Your task to perform on an android device: open device folders in google photos Image 0: 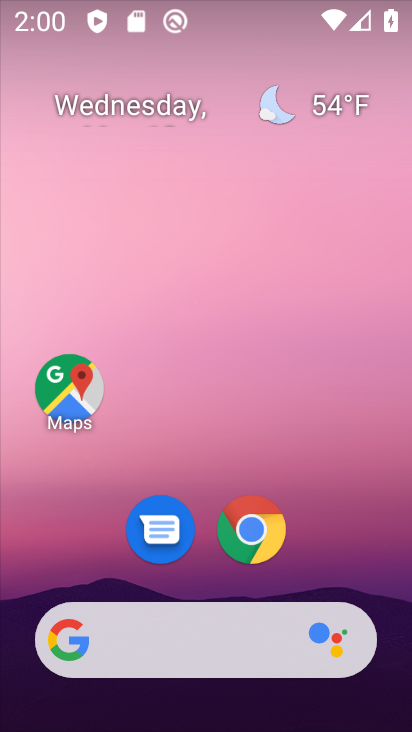
Step 0: drag from (209, 569) to (244, 40)
Your task to perform on an android device: open device folders in google photos Image 1: 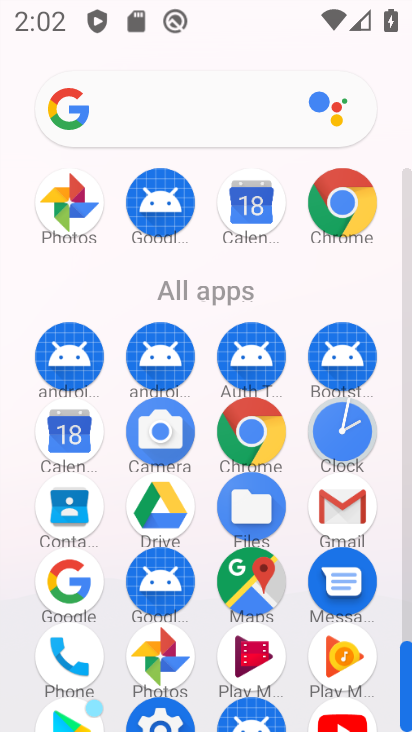
Step 1: click (178, 664)
Your task to perform on an android device: open device folders in google photos Image 2: 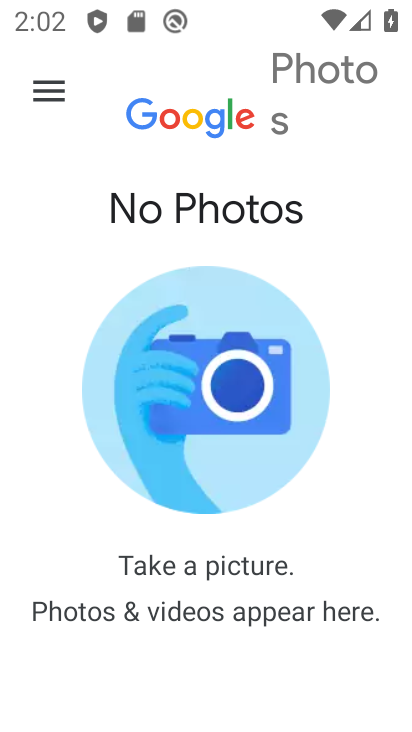
Step 2: click (35, 87)
Your task to perform on an android device: open device folders in google photos Image 3: 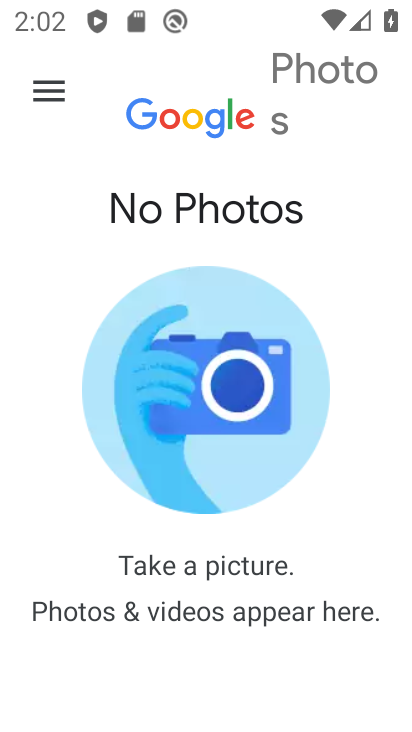
Step 3: click (53, 85)
Your task to perform on an android device: open device folders in google photos Image 4: 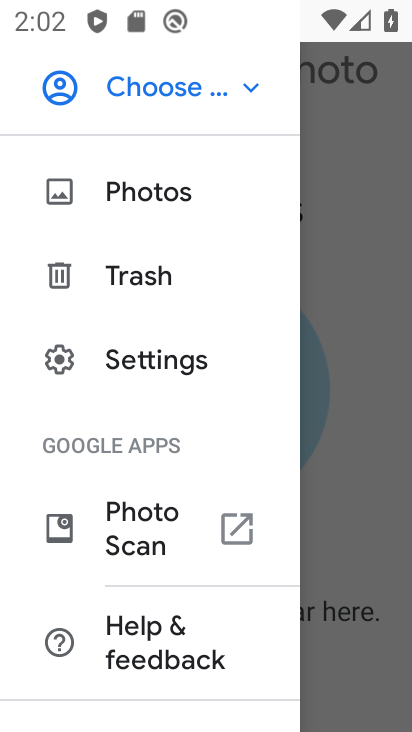
Step 4: task complete